Your task to perform on an android device: toggle location history Image 0: 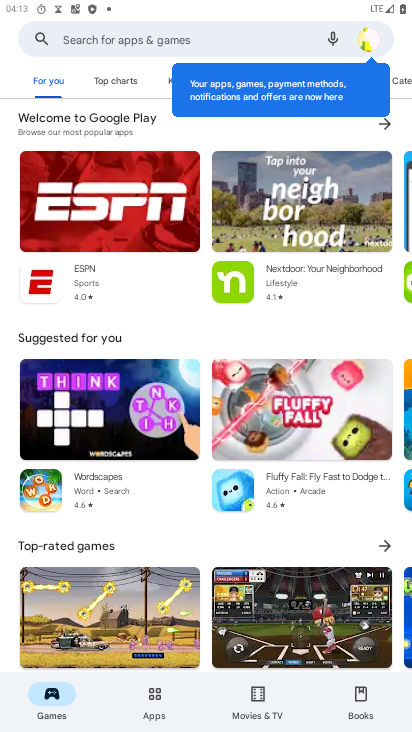
Step 0: press home button
Your task to perform on an android device: toggle location history Image 1: 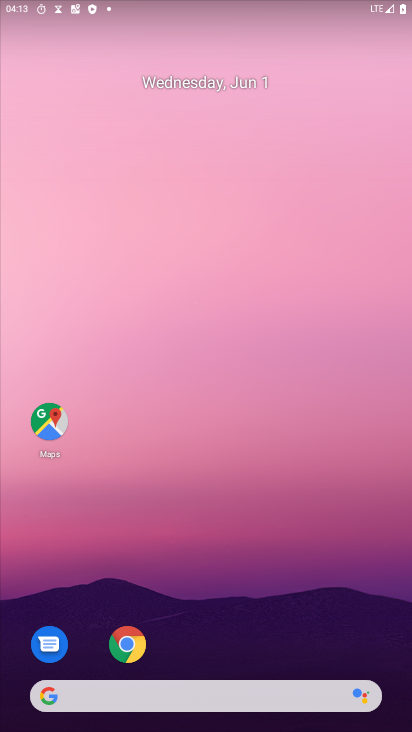
Step 1: drag from (266, 482) to (290, 162)
Your task to perform on an android device: toggle location history Image 2: 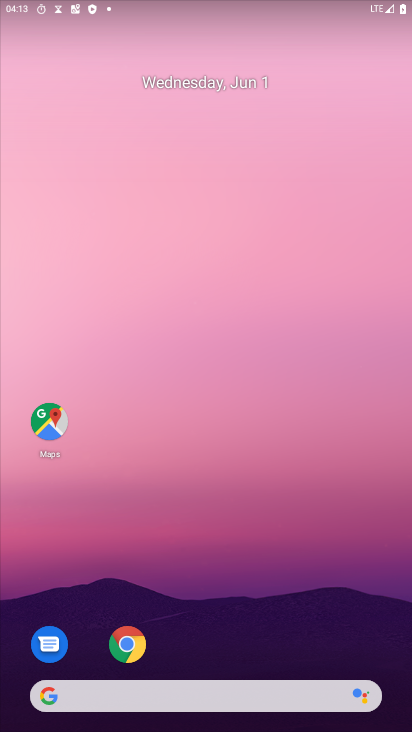
Step 2: drag from (318, 432) to (372, 21)
Your task to perform on an android device: toggle location history Image 3: 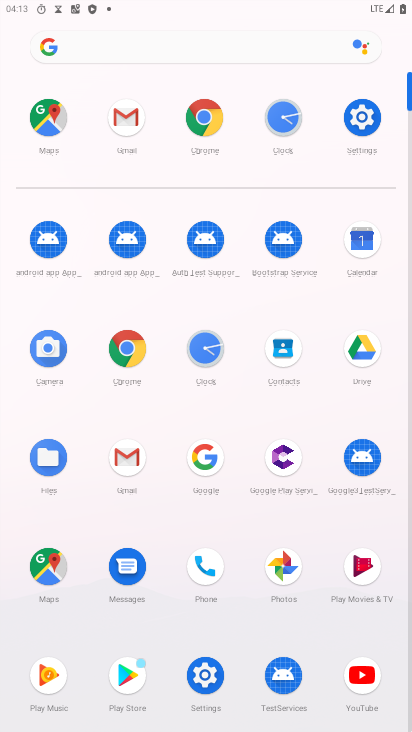
Step 3: click (365, 117)
Your task to perform on an android device: toggle location history Image 4: 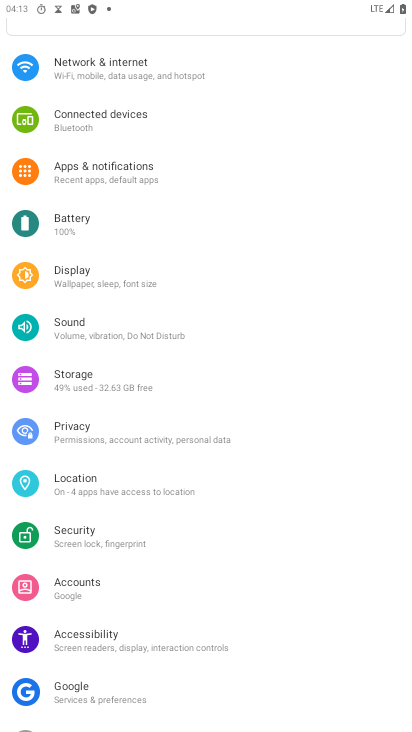
Step 4: click (95, 481)
Your task to perform on an android device: toggle location history Image 5: 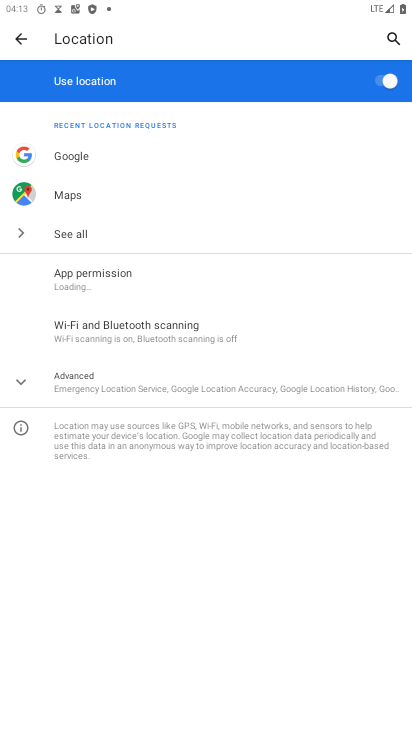
Step 5: click (22, 382)
Your task to perform on an android device: toggle location history Image 6: 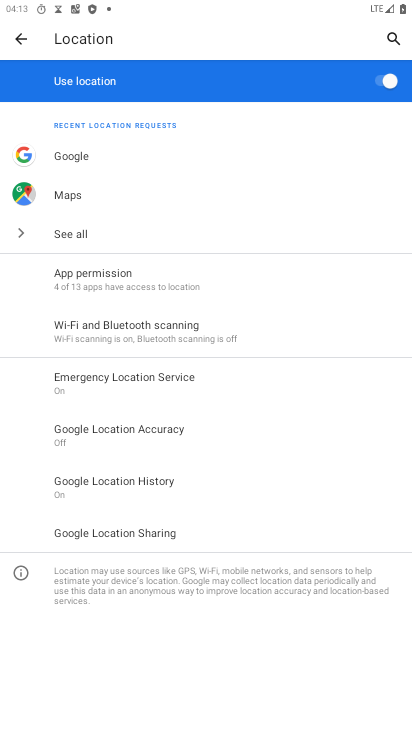
Step 6: click (128, 479)
Your task to perform on an android device: toggle location history Image 7: 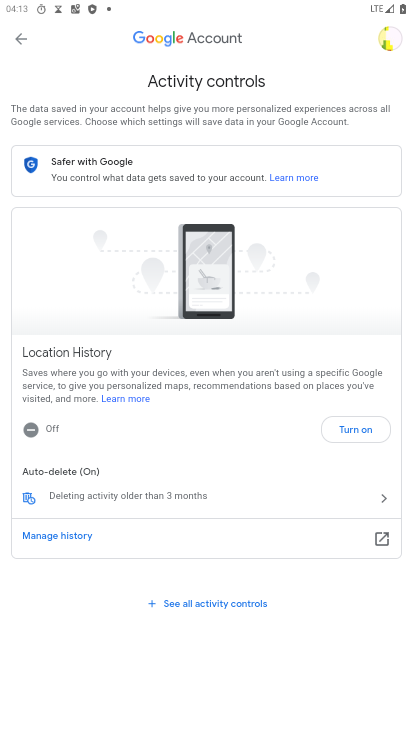
Step 7: click (376, 431)
Your task to perform on an android device: toggle location history Image 8: 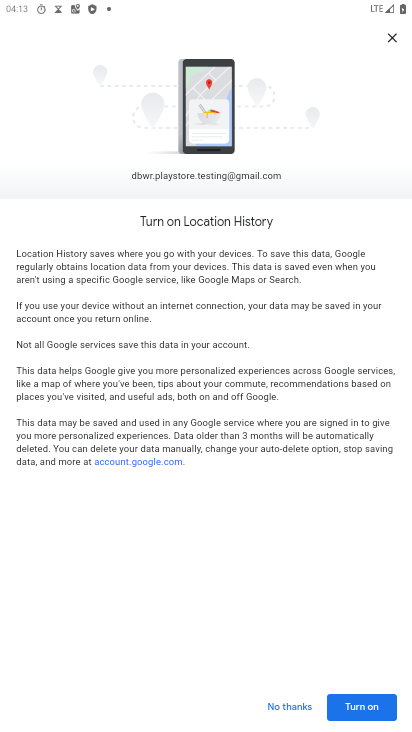
Step 8: click (385, 693)
Your task to perform on an android device: toggle location history Image 9: 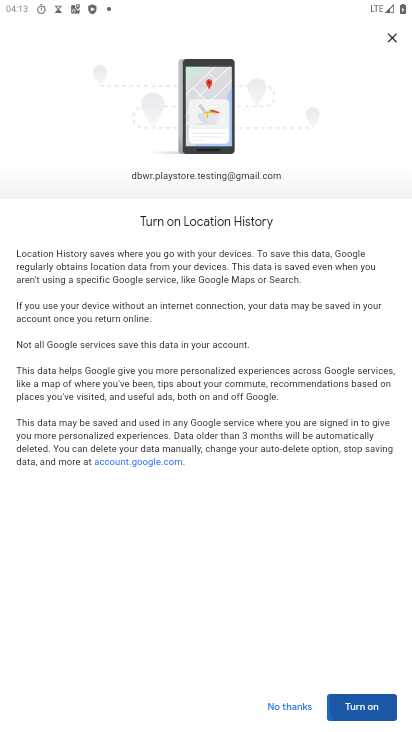
Step 9: click (374, 713)
Your task to perform on an android device: toggle location history Image 10: 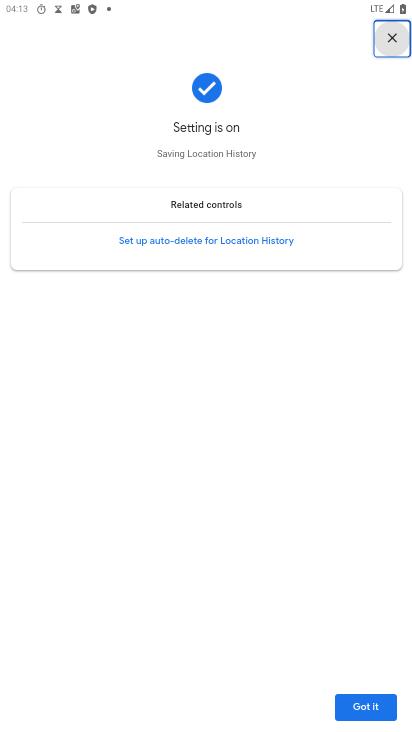
Step 10: click (348, 712)
Your task to perform on an android device: toggle location history Image 11: 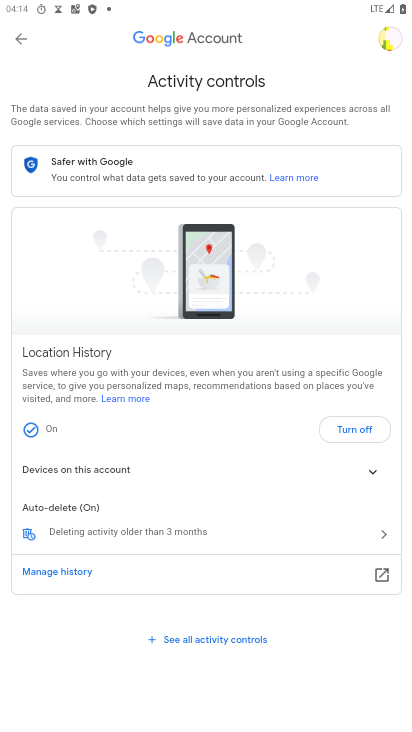
Step 11: task complete